Your task to perform on an android device: turn on translation in the chrome app Image 0: 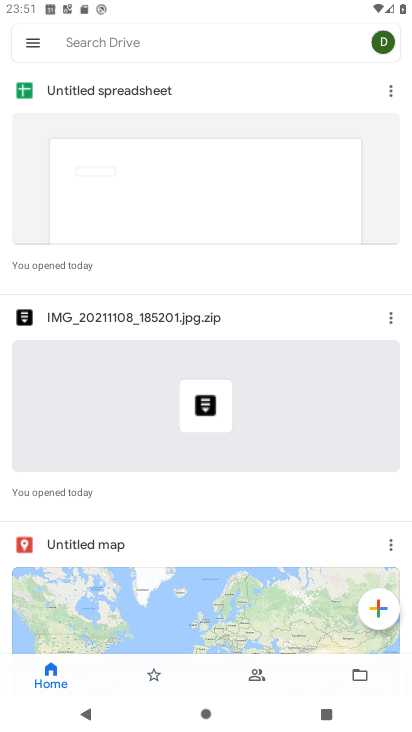
Step 0: press home button
Your task to perform on an android device: turn on translation in the chrome app Image 1: 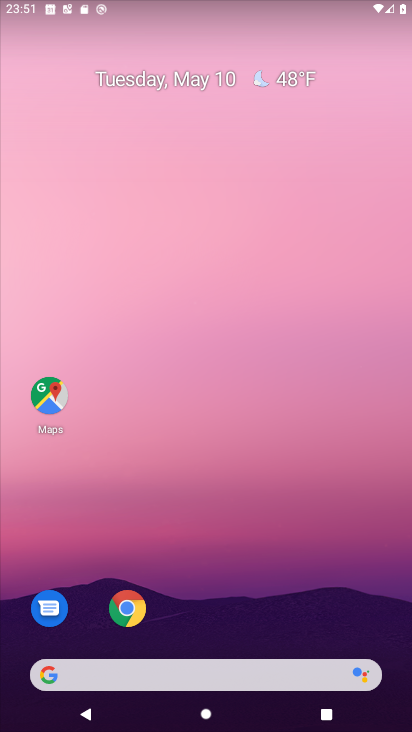
Step 1: click (132, 615)
Your task to perform on an android device: turn on translation in the chrome app Image 2: 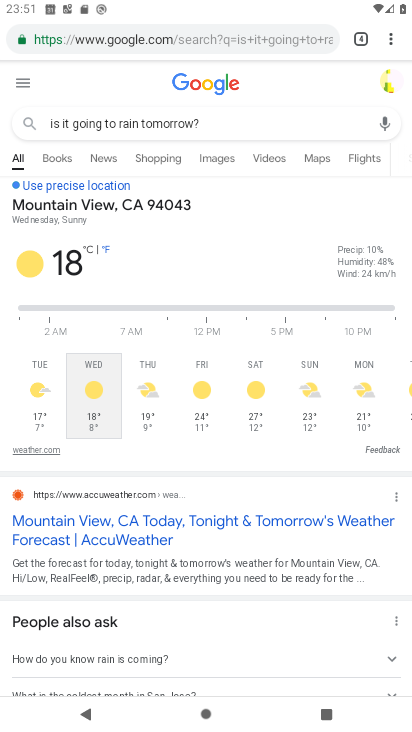
Step 2: click (389, 30)
Your task to perform on an android device: turn on translation in the chrome app Image 3: 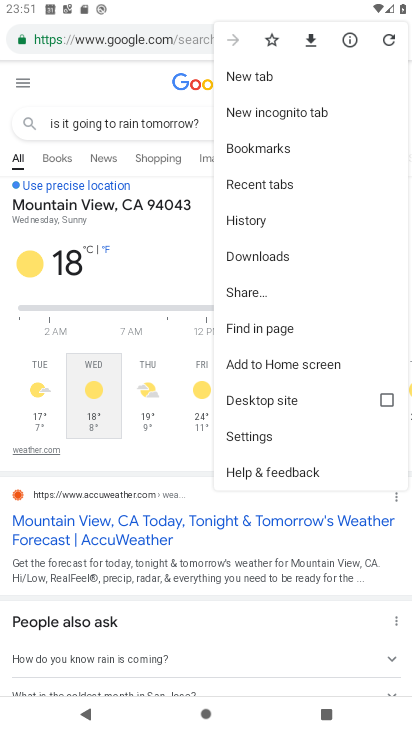
Step 3: click (264, 431)
Your task to perform on an android device: turn on translation in the chrome app Image 4: 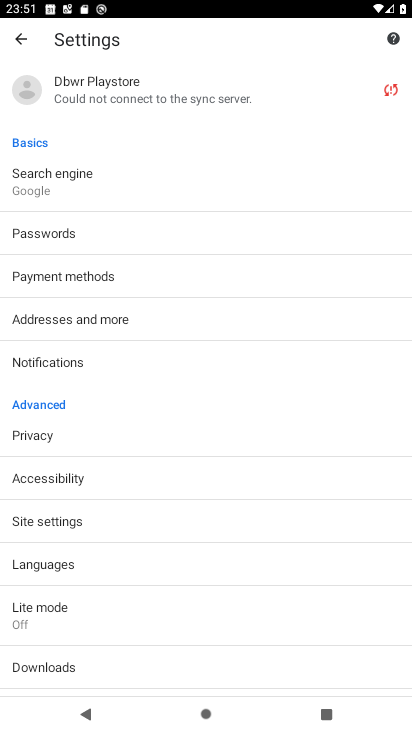
Step 4: click (66, 571)
Your task to perform on an android device: turn on translation in the chrome app Image 5: 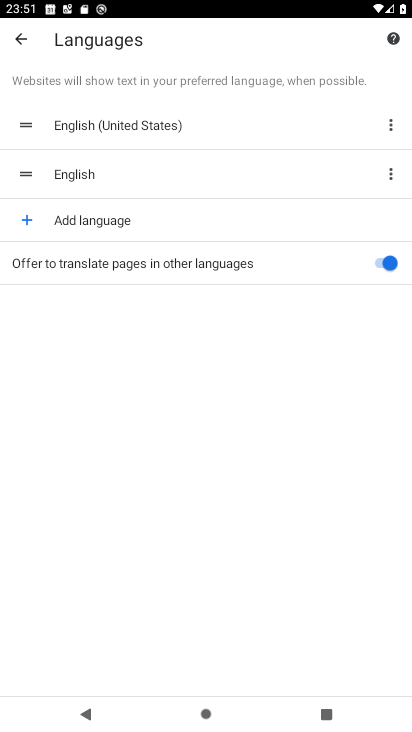
Step 5: task complete